Your task to perform on an android device: Go to Google maps Image 0: 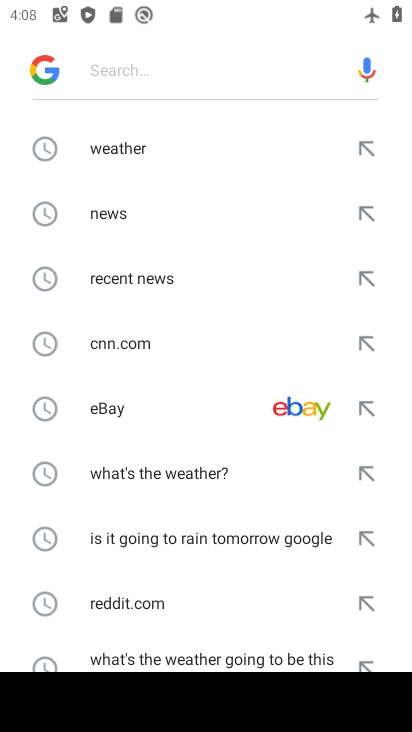
Step 0: press home button
Your task to perform on an android device: Go to Google maps Image 1: 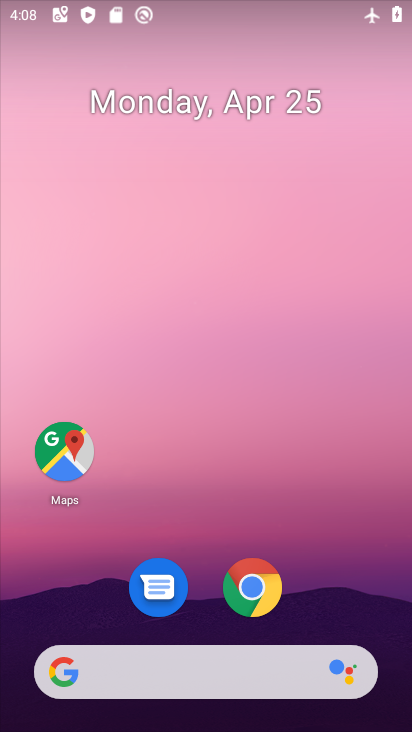
Step 1: click (61, 458)
Your task to perform on an android device: Go to Google maps Image 2: 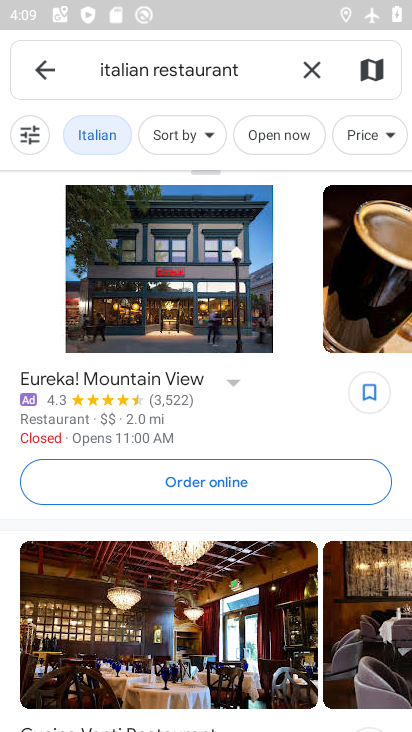
Step 2: task complete